Your task to perform on an android device: Open Reddit.com Image 0: 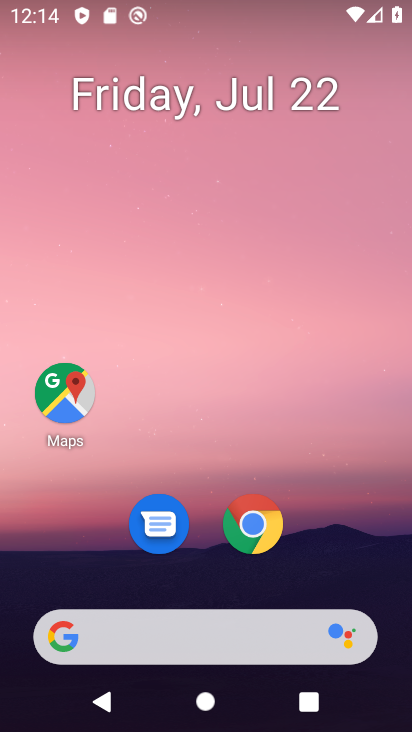
Step 0: press home button
Your task to perform on an android device: Open Reddit.com Image 1: 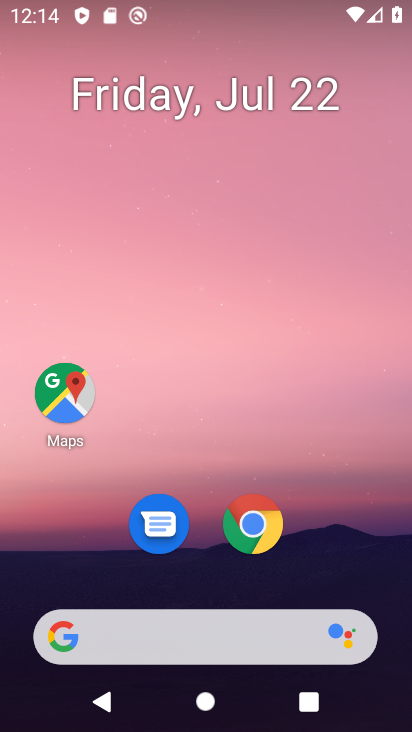
Step 1: click (252, 524)
Your task to perform on an android device: Open Reddit.com Image 2: 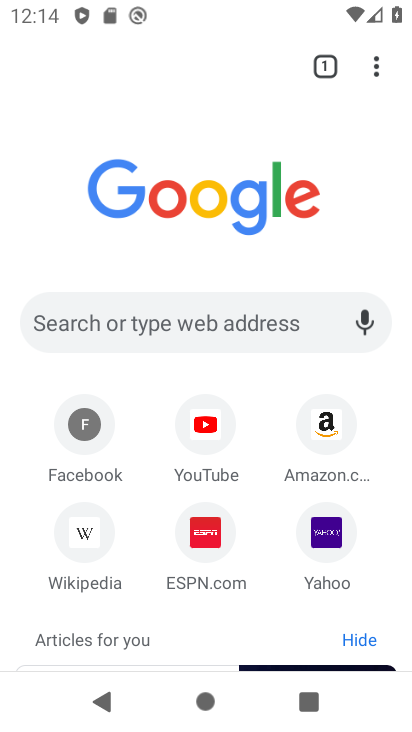
Step 2: click (153, 310)
Your task to perform on an android device: Open Reddit.com Image 3: 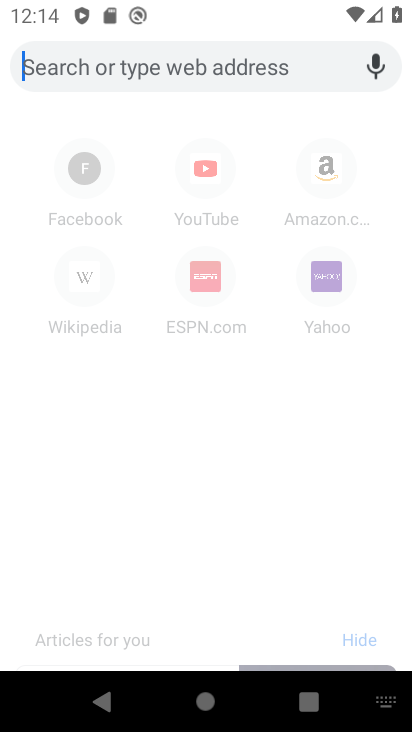
Step 3: type "reddit.com"
Your task to perform on an android device: Open Reddit.com Image 4: 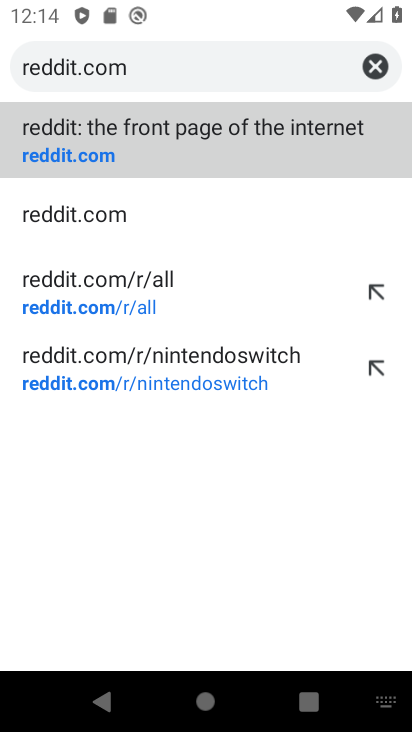
Step 4: click (119, 134)
Your task to perform on an android device: Open Reddit.com Image 5: 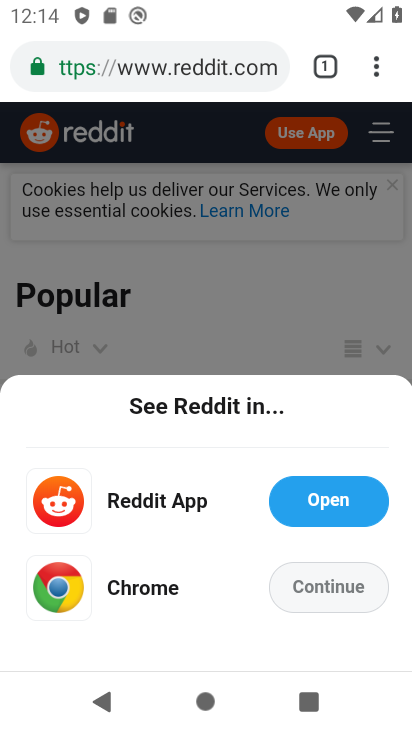
Step 5: task complete